Your task to perform on an android device: toggle airplane mode Image 0: 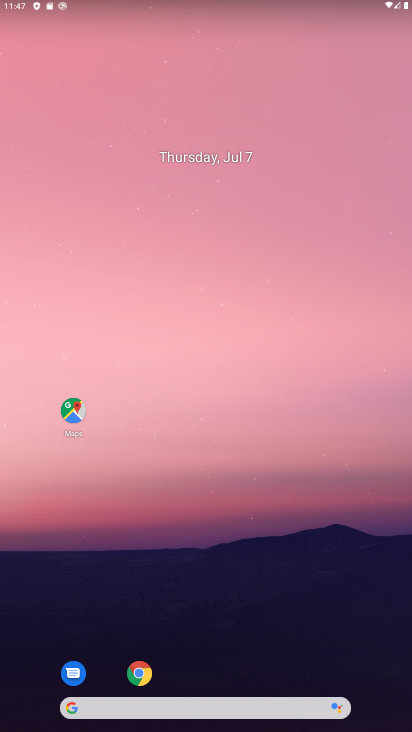
Step 0: click (185, 324)
Your task to perform on an android device: toggle airplane mode Image 1: 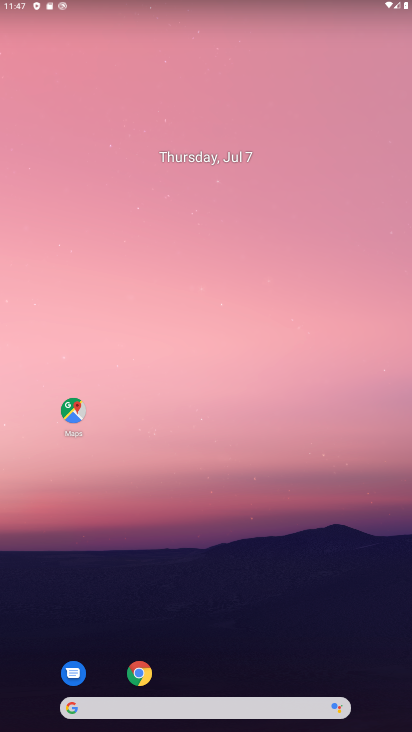
Step 1: click (312, 120)
Your task to perform on an android device: toggle airplane mode Image 2: 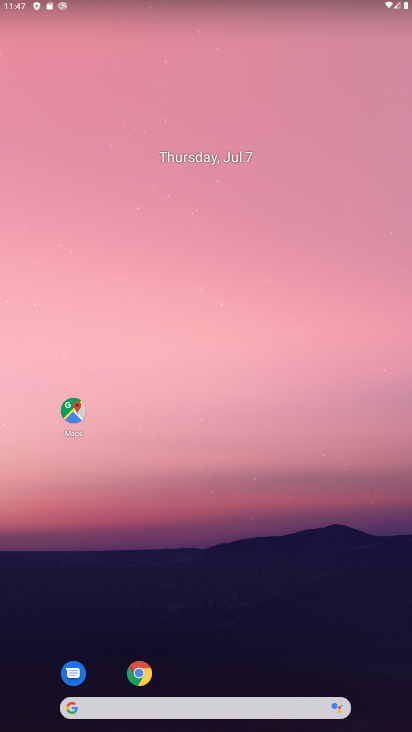
Step 2: drag from (263, 446) to (333, 59)
Your task to perform on an android device: toggle airplane mode Image 3: 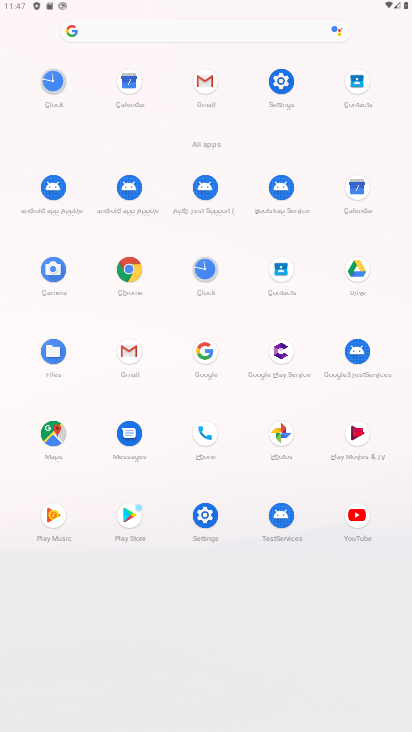
Step 3: press home button
Your task to perform on an android device: toggle airplane mode Image 4: 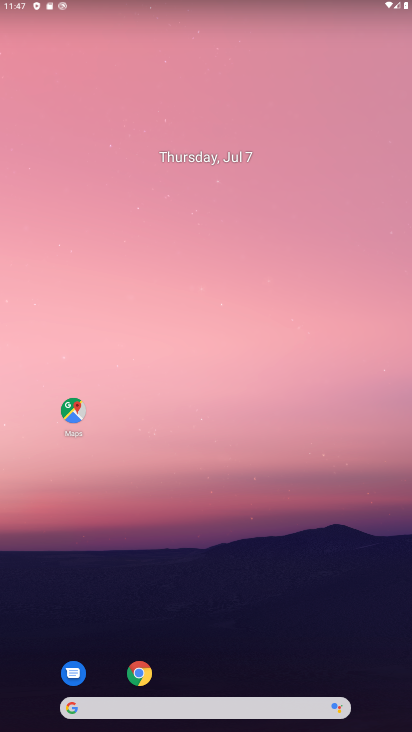
Step 4: drag from (244, 4) to (162, 447)
Your task to perform on an android device: toggle airplane mode Image 5: 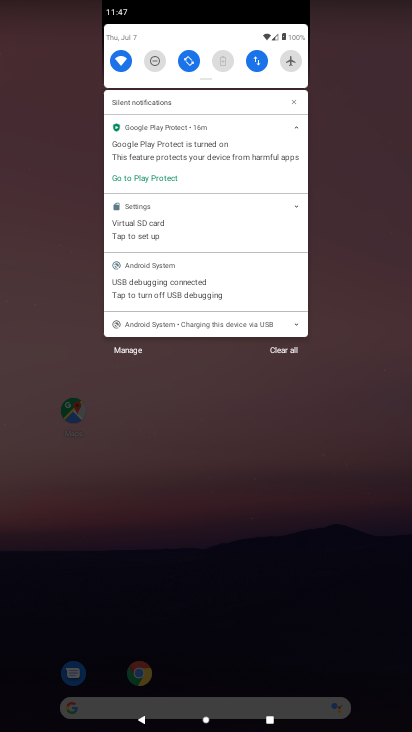
Step 5: click (287, 60)
Your task to perform on an android device: toggle airplane mode Image 6: 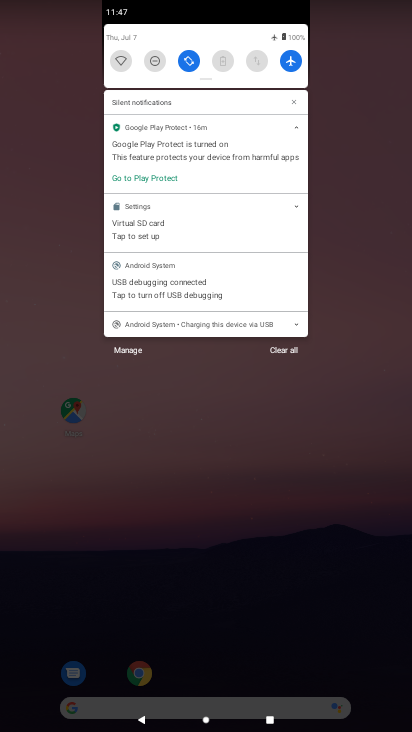
Step 6: task complete